Your task to perform on an android device: Find coffee shops on Maps Image 0: 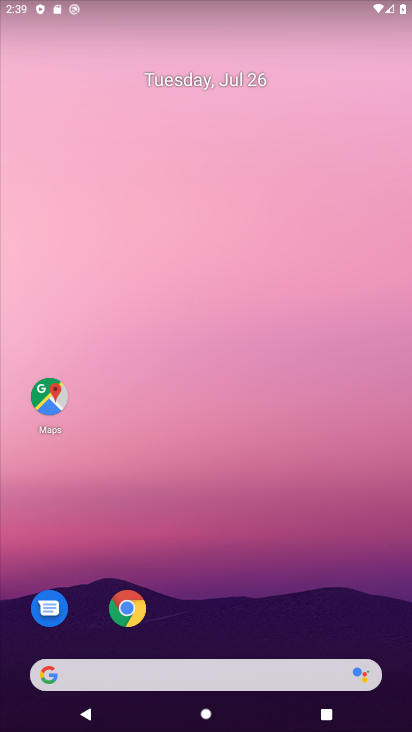
Step 0: drag from (239, 523) to (233, 68)
Your task to perform on an android device: Find coffee shops on Maps Image 1: 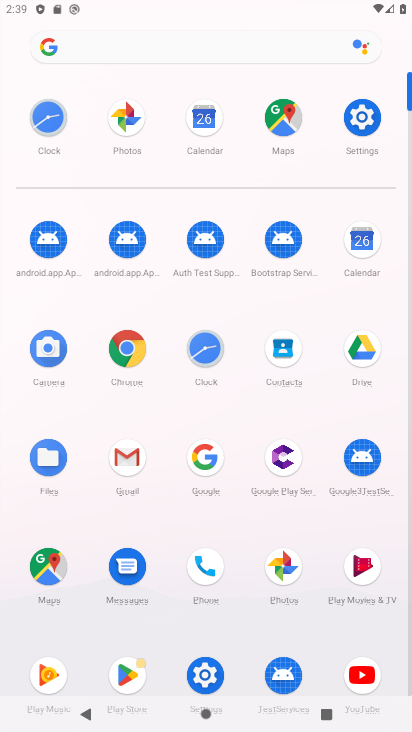
Step 1: click (55, 567)
Your task to perform on an android device: Find coffee shops on Maps Image 2: 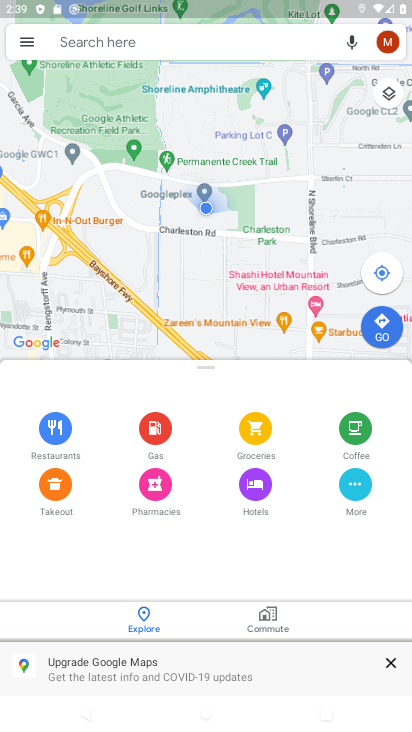
Step 2: click (172, 46)
Your task to perform on an android device: Find coffee shops on Maps Image 3: 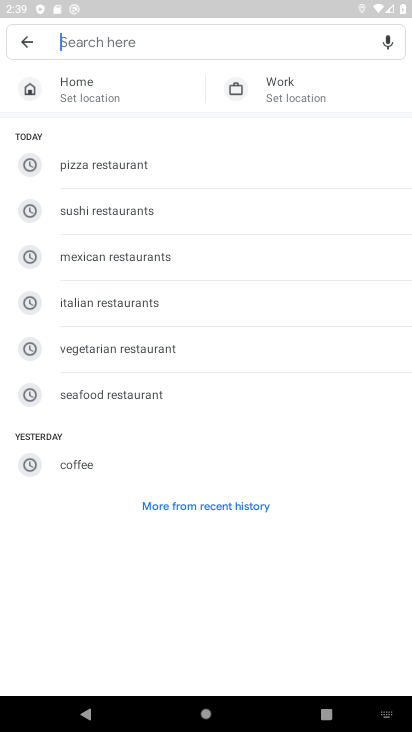
Step 3: type " coffee shops"
Your task to perform on an android device: Find coffee shops on Maps Image 4: 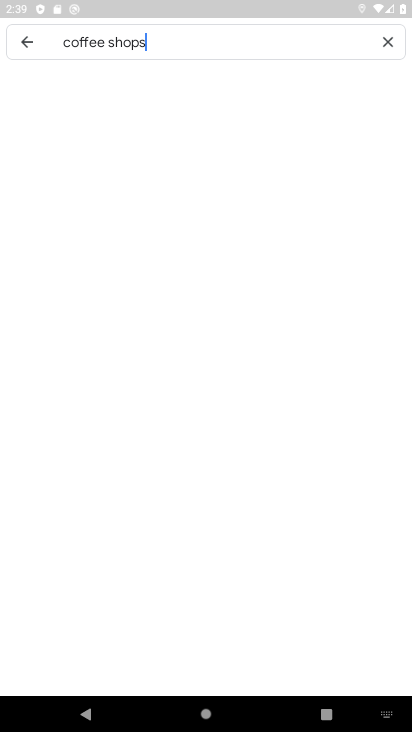
Step 4: press enter
Your task to perform on an android device: Find coffee shops on Maps Image 5: 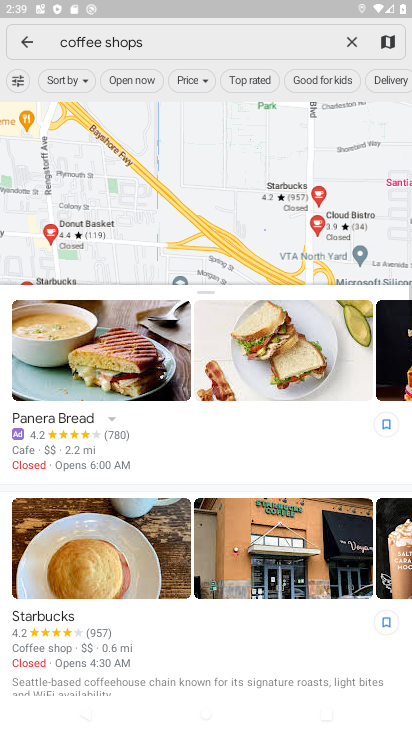
Step 5: task complete